Your task to perform on an android device: Is it going to rain this weekend? Image 0: 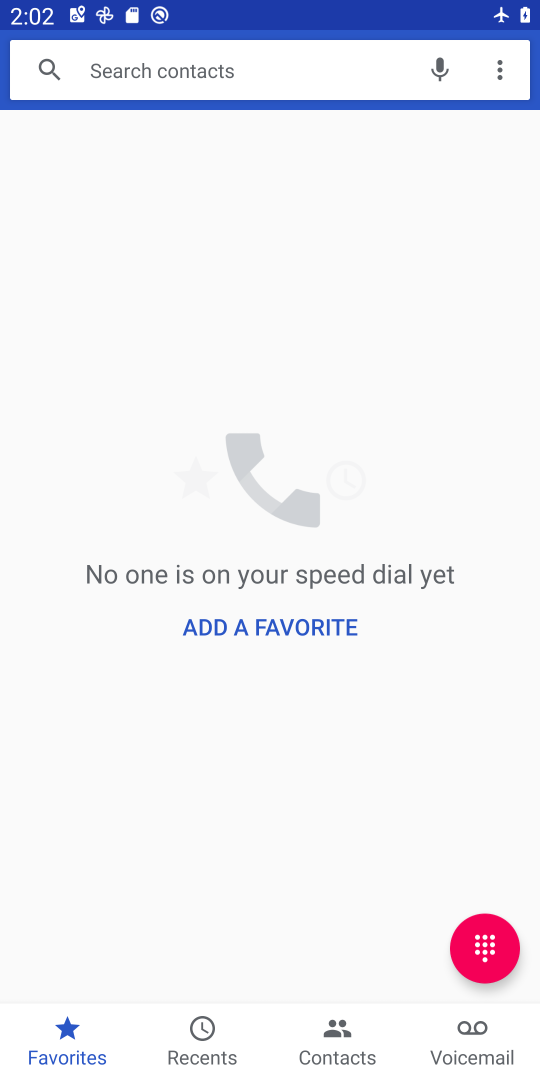
Step 0: press home button
Your task to perform on an android device: Is it going to rain this weekend? Image 1: 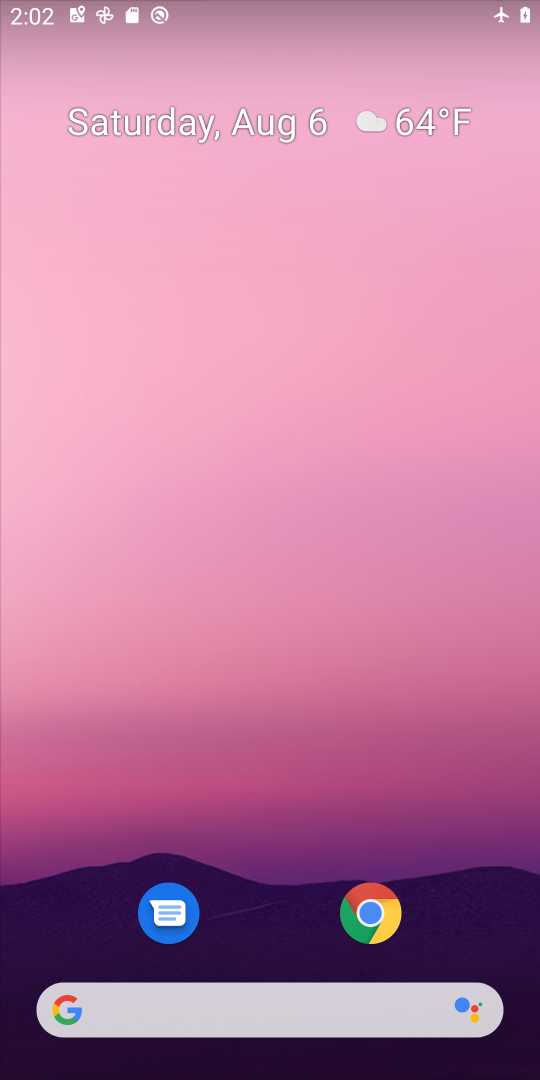
Step 1: click (284, 1007)
Your task to perform on an android device: Is it going to rain this weekend? Image 2: 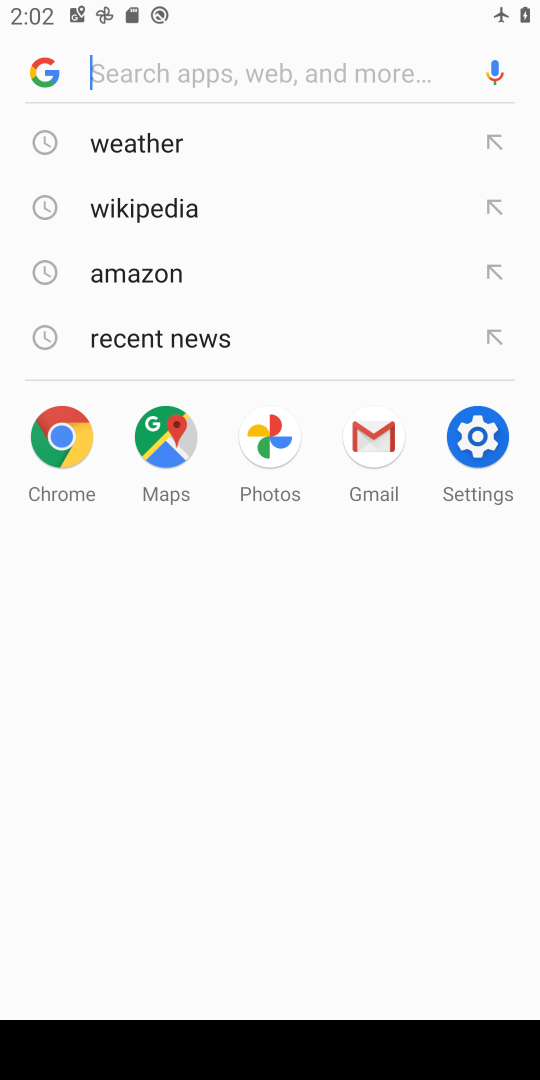
Step 2: click (174, 144)
Your task to perform on an android device: Is it going to rain this weekend? Image 3: 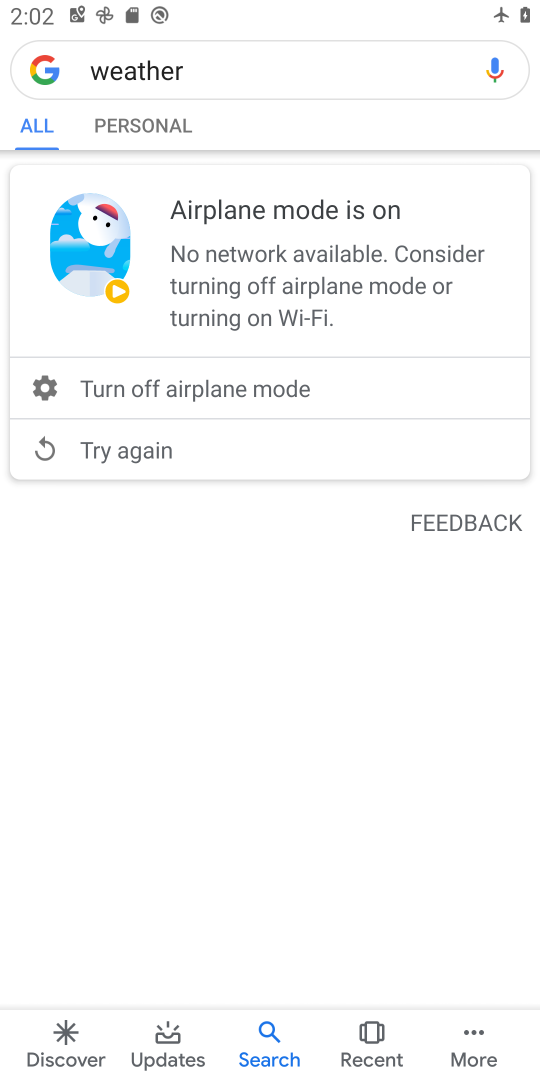
Step 3: task complete